Your task to perform on an android device: Toggle the flashlight Image 0: 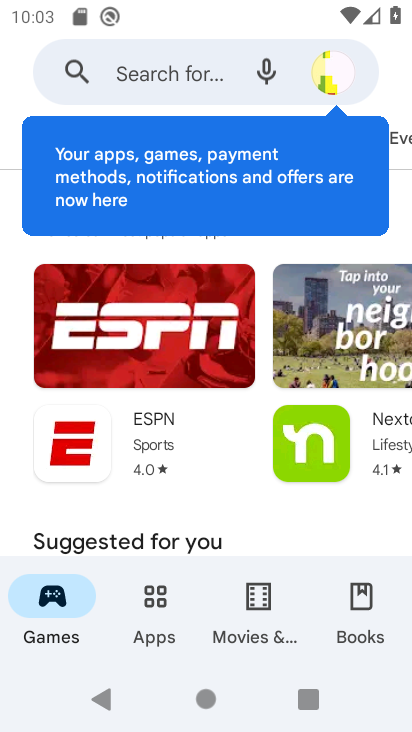
Step 0: press home button
Your task to perform on an android device: Toggle the flashlight Image 1: 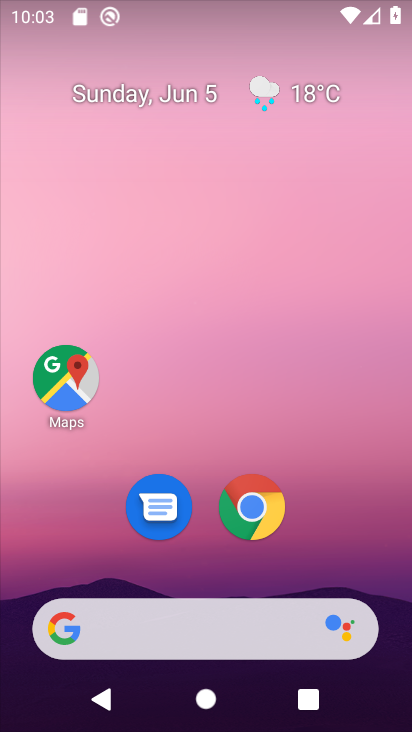
Step 1: drag from (197, 580) to (224, 31)
Your task to perform on an android device: Toggle the flashlight Image 2: 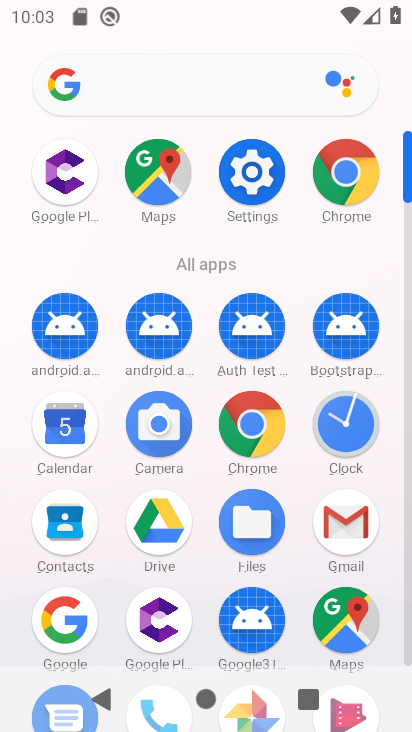
Step 2: click (242, 178)
Your task to perform on an android device: Toggle the flashlight Image 3: 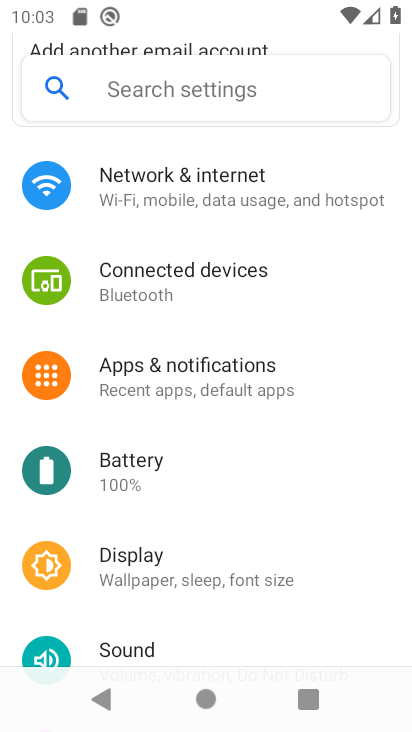
Step 3: click (202, 95)
Your task to perform on an android device: Toggle the flashlight Image 4: 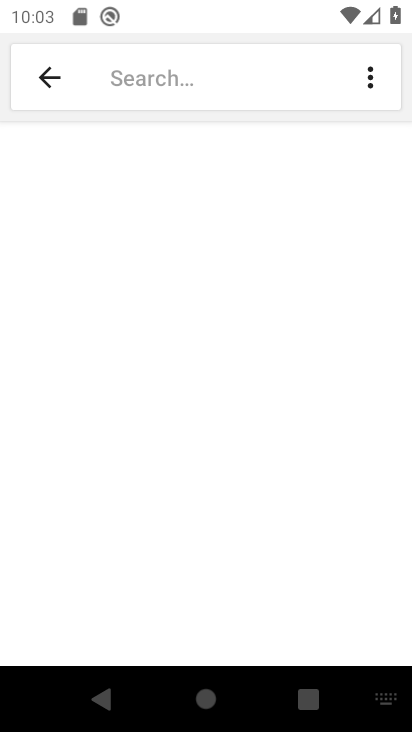
Step 4: type "flashlight"
Your task to perform on an android device: Toggle the flashlight Image 5: 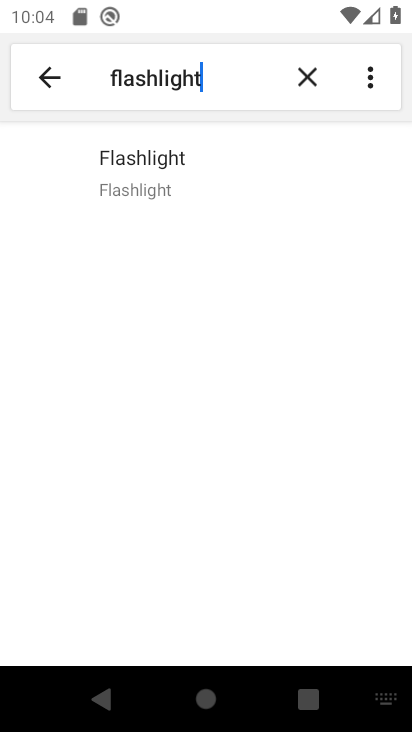
Step 5: click (167, 170)
Your task to perform on an android device: Toggle the flashlight Image 6: 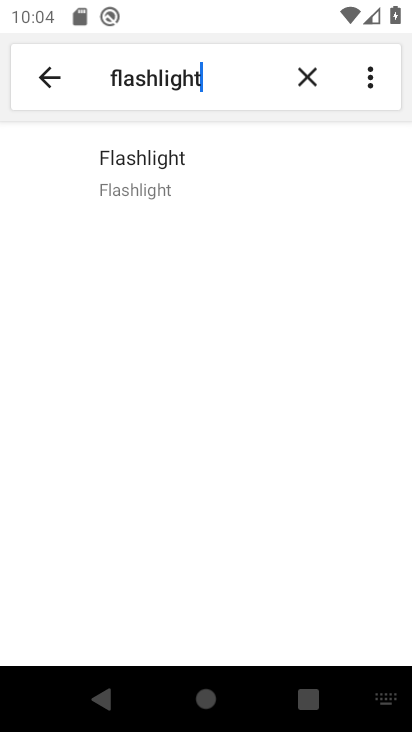
Step 6: click (178, 177)
Your task to perform on an android device: Toggle the flashlight Image 7: 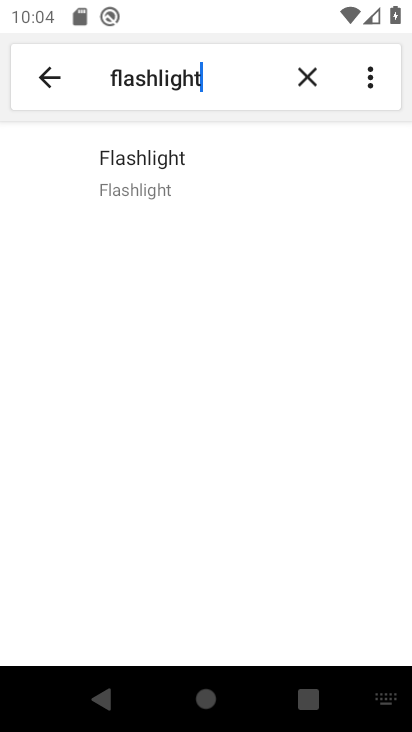
Step 7: click (178, 177)
Your task to perform on an android device: Toggle the flashlight Image 8: 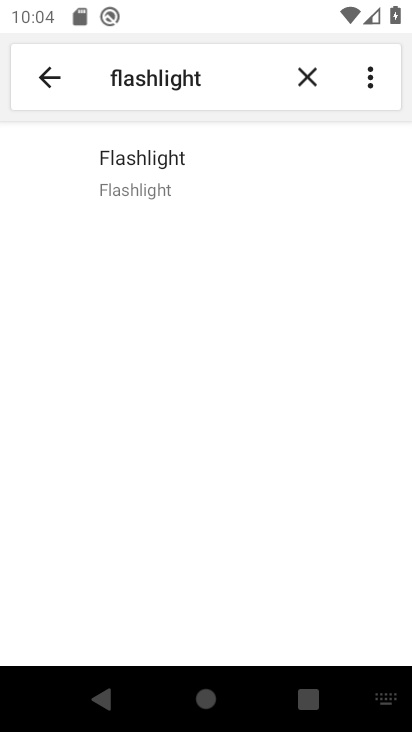
Step 8: task complete